Your task to perform on an android device: set the stopwatch Image 0: 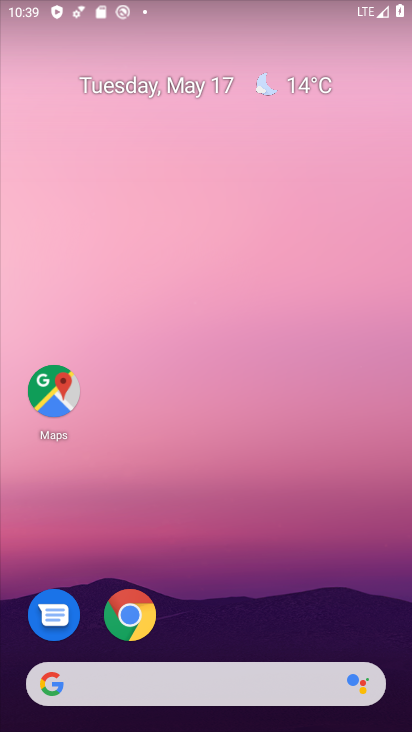
Step 0: drag from (196, 683) to (322, 230)
Your task to perform on an android device: set the stopwatch Image 1: 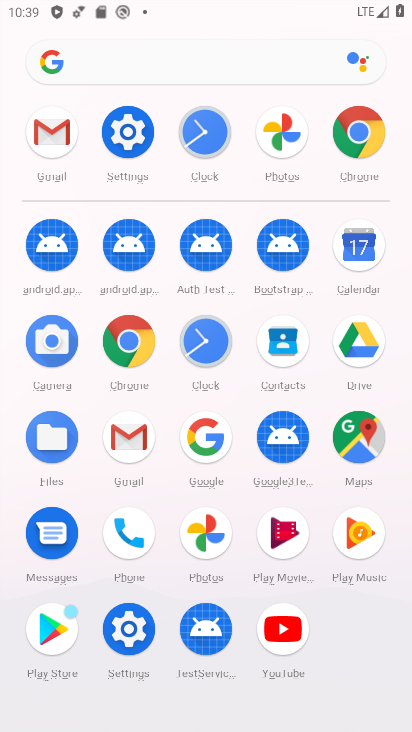
Step 1: click (224, 133)
Your task to perform on an android device: set the stopwatch Image 2: 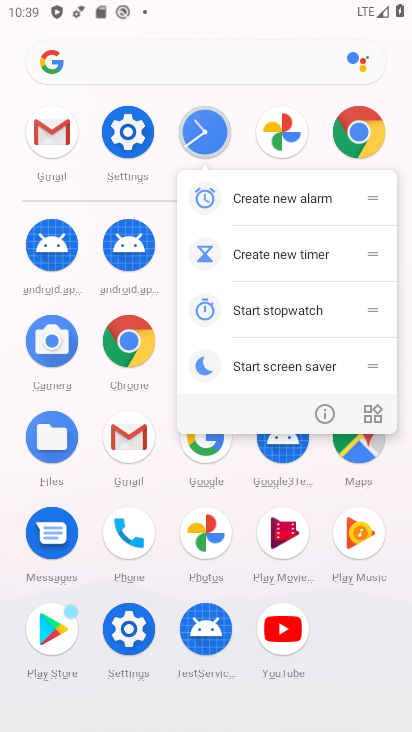
Step 2: click (204, 139)
Your task to perform on an android device: set the stopwatch Image 3: 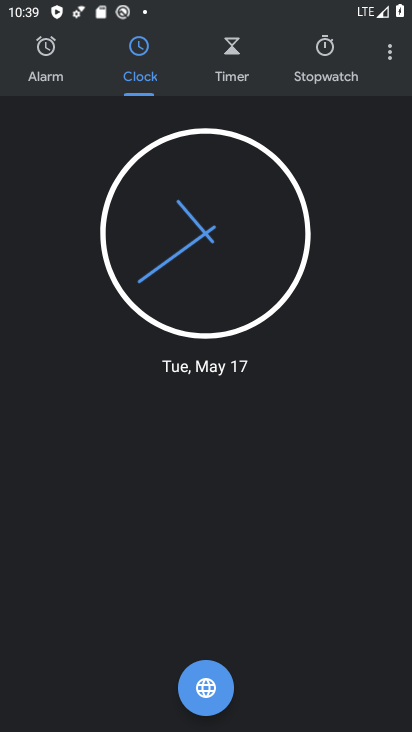
Step 3: click (334, 71)
Your task to perform on an android device: set the stopwatch Image 4: 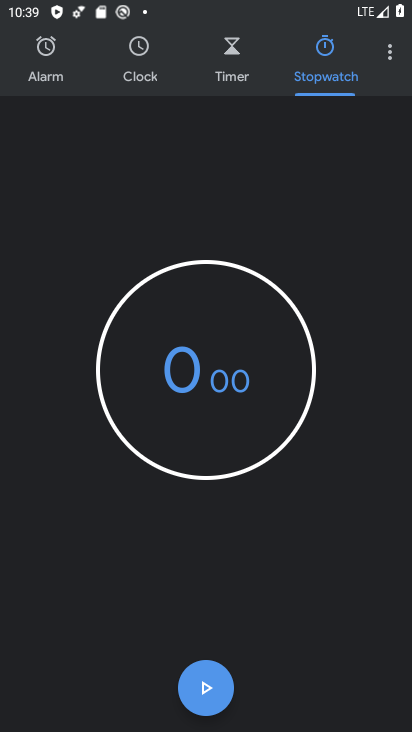
Step 4: click (201, 381)
Your task to perform on an android device: set the stopwatch Image 5: 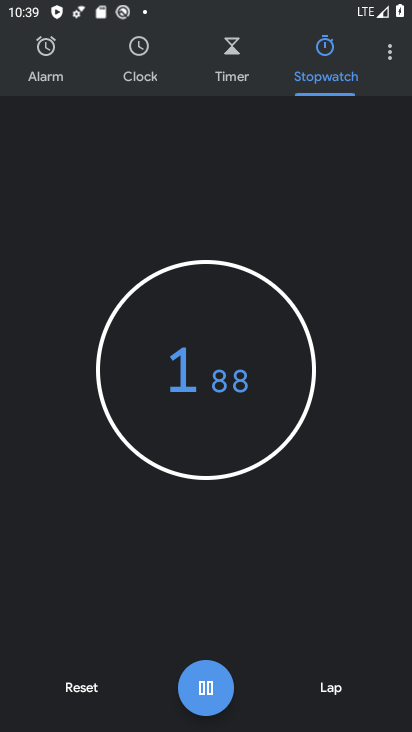
Step 5: click (201, 381)
Your task to perform on an android device: set the stopwatch Image 6: 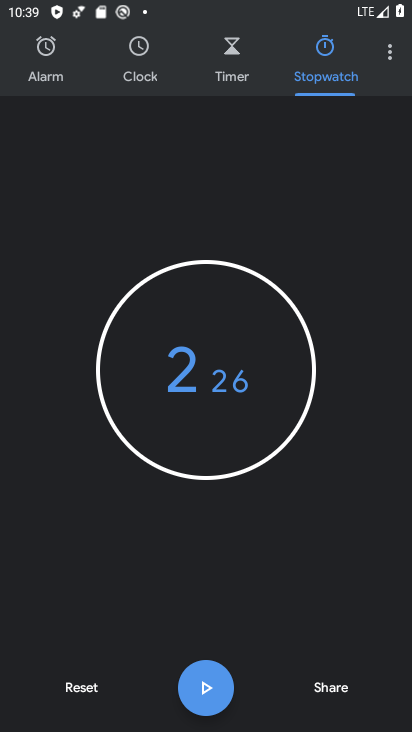
Step 6: task complete